Your task to perform on an android device: Go to sound settings Image 0: 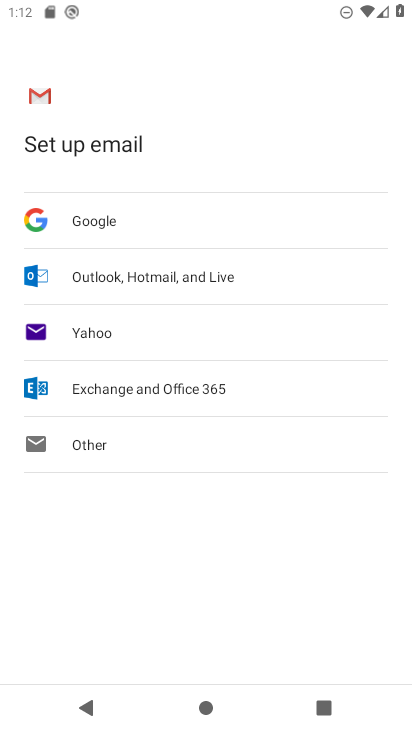
Step 0: press home button
Your task to perform on an android device: Go to sound settings Image 1: 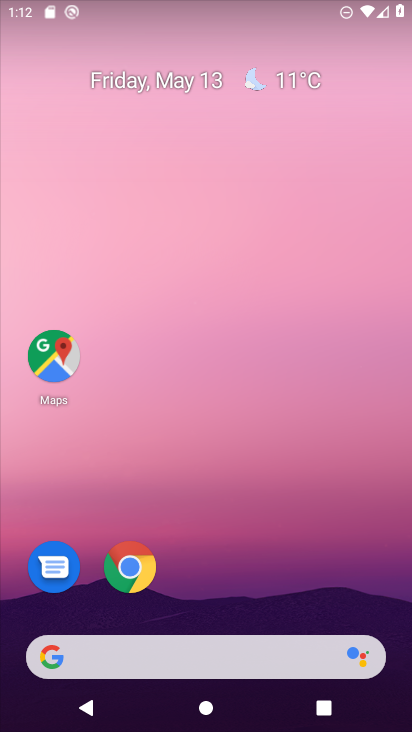
Step 1: drag from (201, 611) to (214, 10)
Your task to perform on an android device: Go to sound settings Image 2: 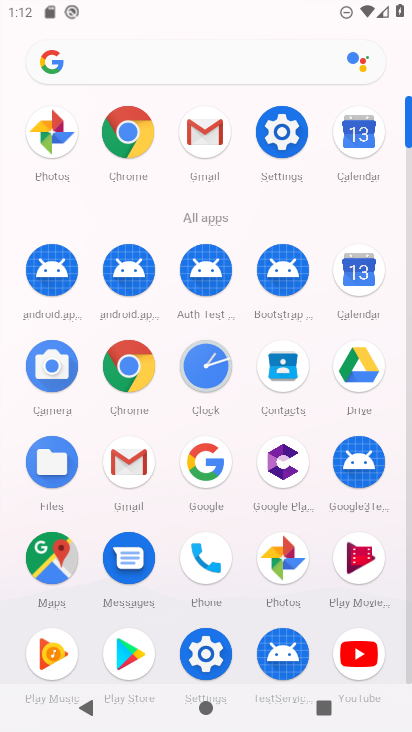
Step 2: click (278, 130)
Your task to perform on an android device: Go to sound settings Image 3: 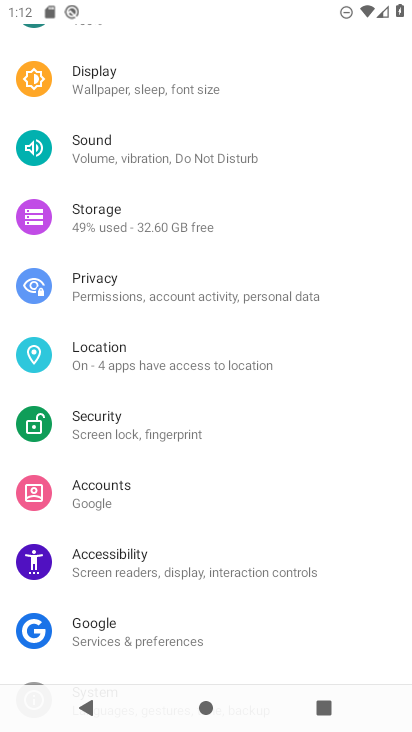
Step 3: click (123, 141)
Your task to perform on an android device: Go to sound settings Image 4: 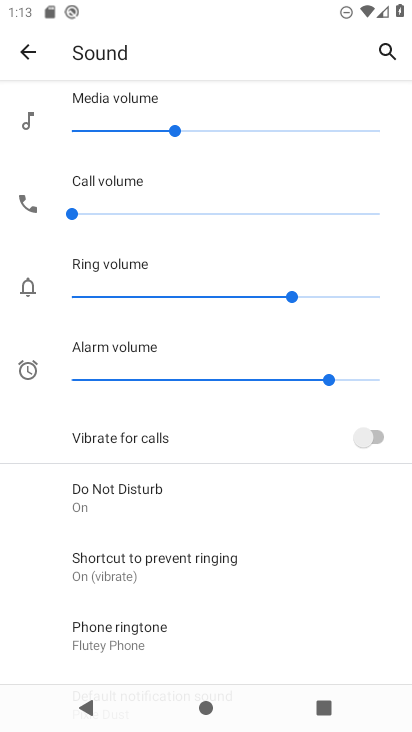
Step 4: drag from (180, 627) to (175, 128)
Your task to perform on an android device: Go to sound settings Image 5: 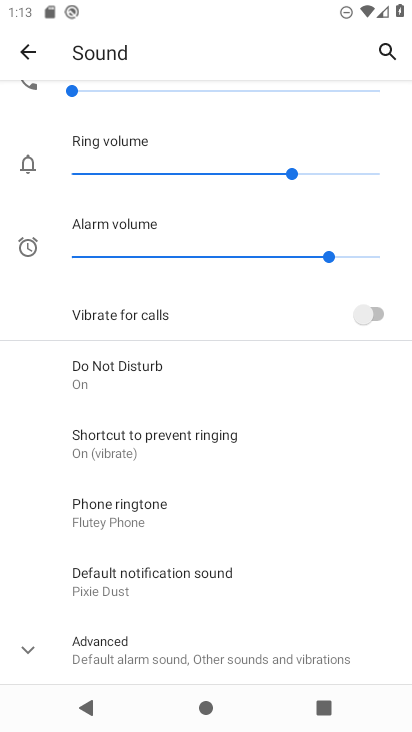
Step 5: click (15, 650)
Your task to perform on an android device: Go to sound settings Image 6: 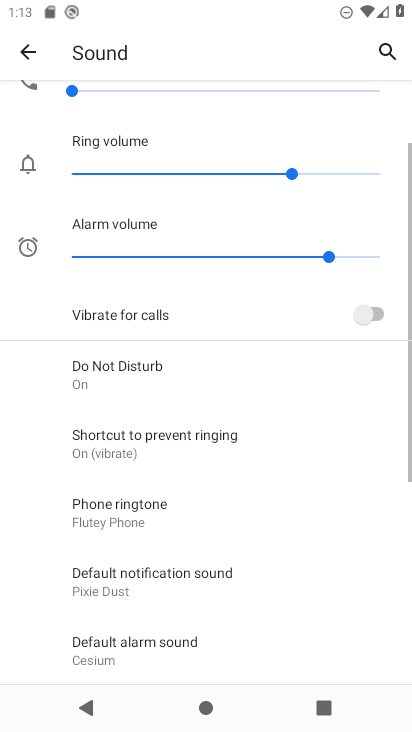
Step 6: task complete